Your task to perform on an android device: delete a single message in the gmail app Image 0: 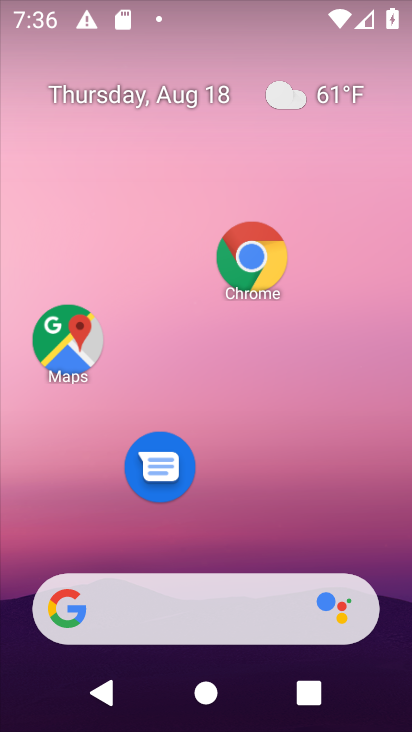
Step 0: task complete